Your task to perform on an android device: show emergency info Image 0: 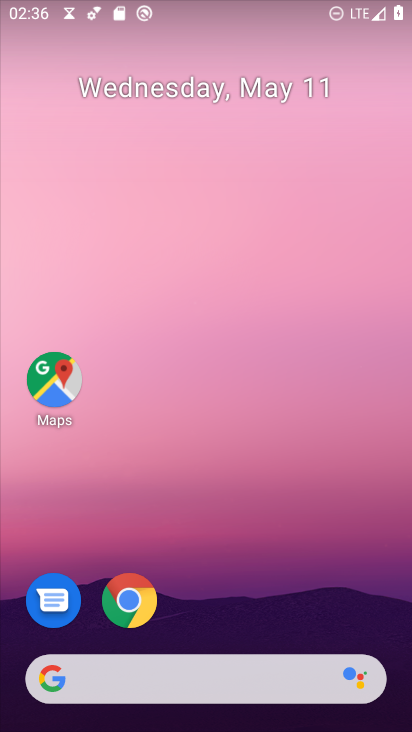
Step 0: drag from (246, 617) to (282, 307)
Your task to perform on an android device: show emergency info Image 1: 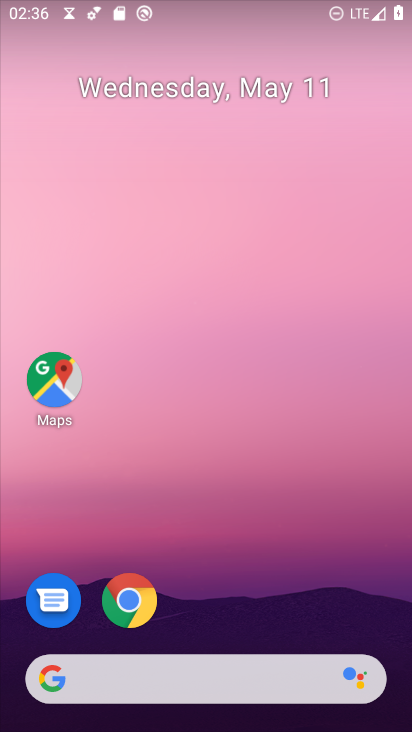
Step 1: drag from (247, 617) to (298, 275)
Your task to perform on an android device: show emergency info Image 2: 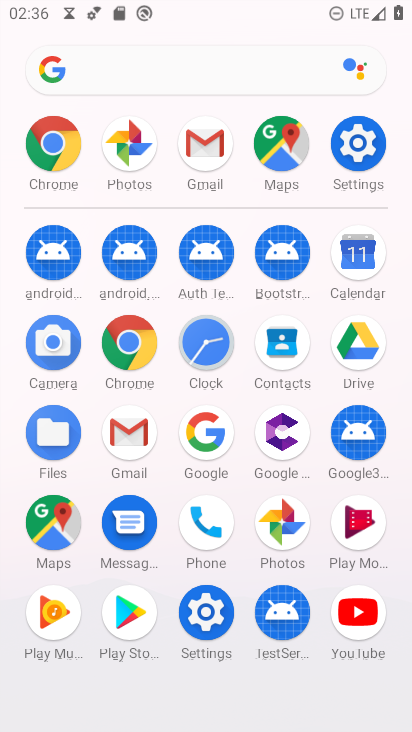
Step 2: click (354, 135)
Your task to perform on an android device: show emergency info Image 3: 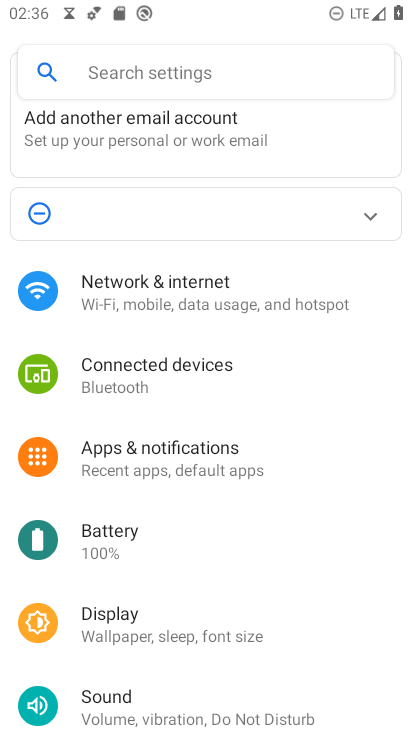
Step 3: drag from (235, 675) to (294, 267)
Your task to perform on an android device: show emergency info Image 4: 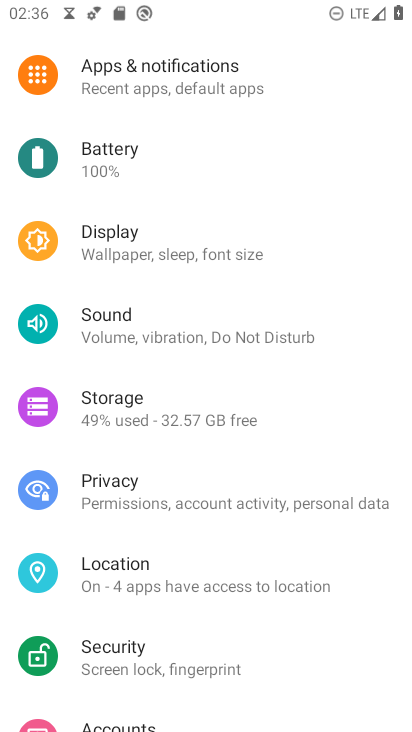
Step 4: drag from (242, 653) to (290, 242)
Your task to perform on an android device: show emergency info Image 5: 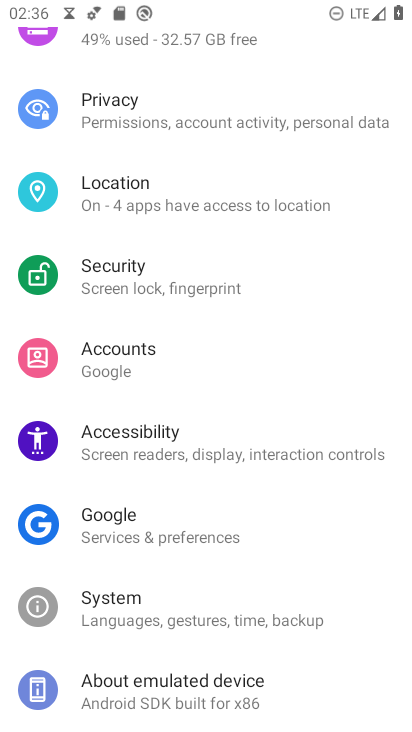
Step 5: drag from (220, 687) to (278, 371)
Your task to perform on an android device: show emergency info Image 6: 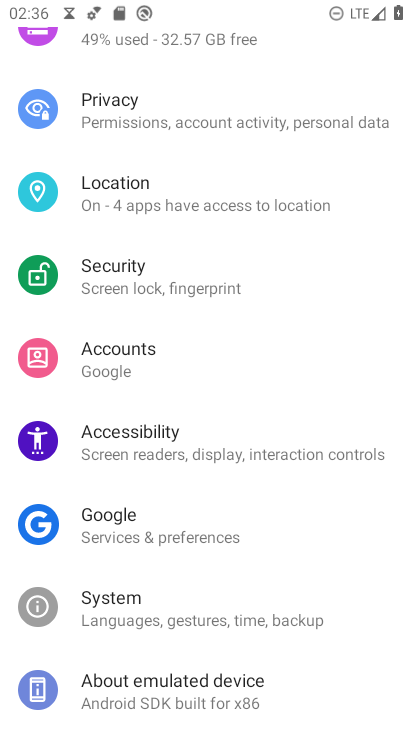
Step 6: click (226, 690)
Your task to perform on an android device: show emergency info Image 7: 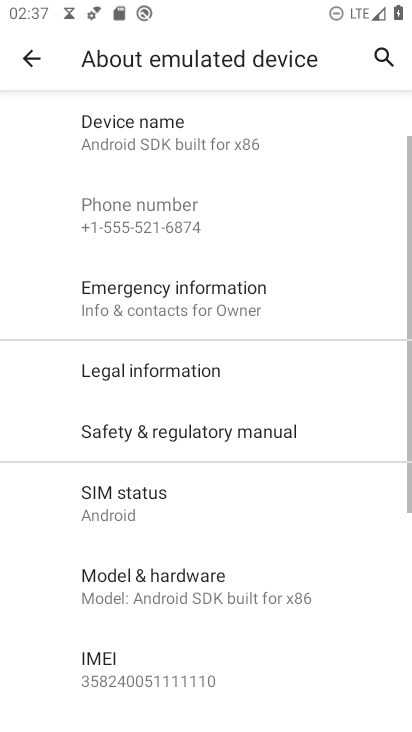
Step 7: click (205, 298)
Your task to perform on an android device: show emergency info Image 8: 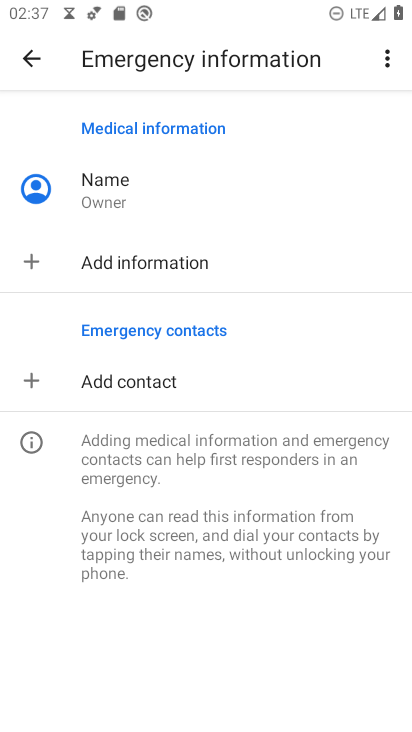
Step 8: task complete